Your task to perform on an android device: Open Reddit.com Image 0: 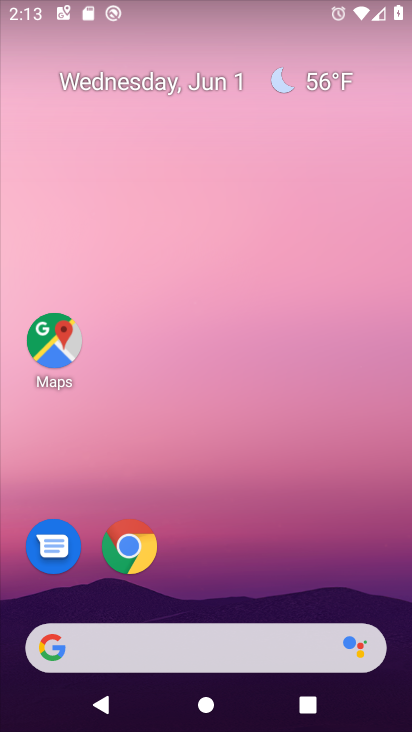
Step 0: click (123, 561)
Your task to perform on an android device: Open Reddit.com Image 1: 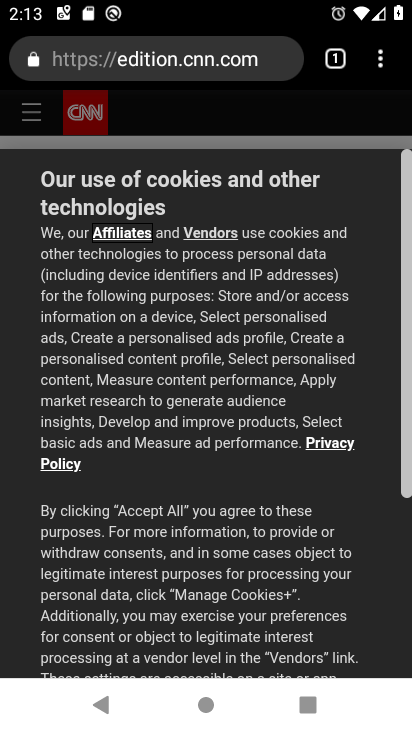
Step 1: click (336, 61)
Your task to perform on an android device: Open Reddit.com Image 2: 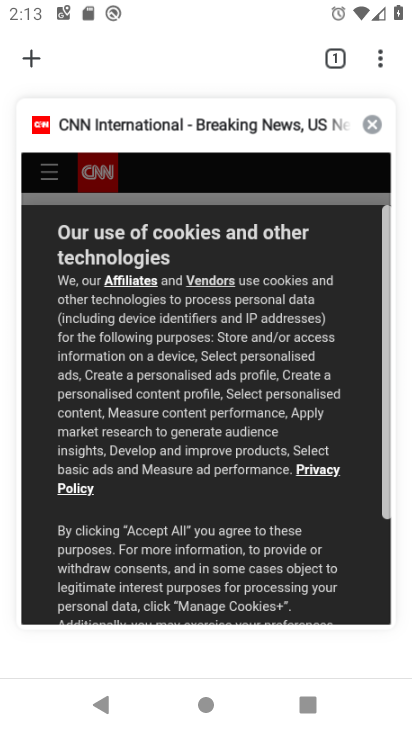
Step 2: click (365, 126)
Your task to perform on an android device: Open Reddit.com Image 3: 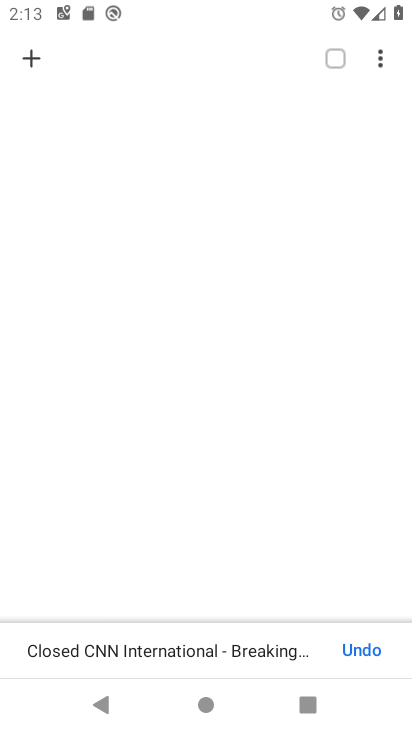
Step 3: click (33, 59)
Your task to perform on an android device: Open Reddit.com Image 4: 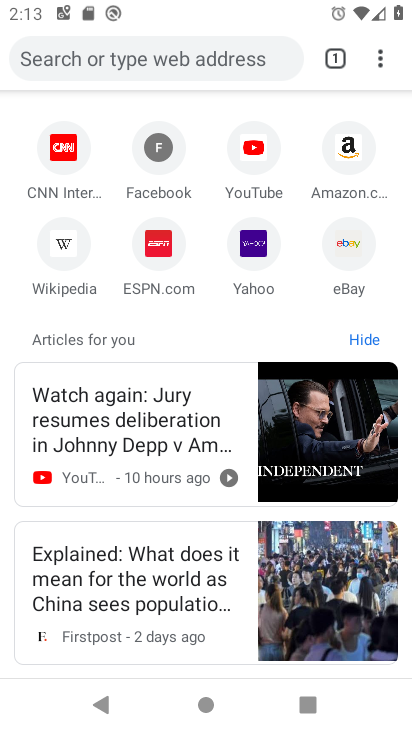
Step 4: click (162, 59)
Your task to perform on an android device: Open Reddit.com Image 5: 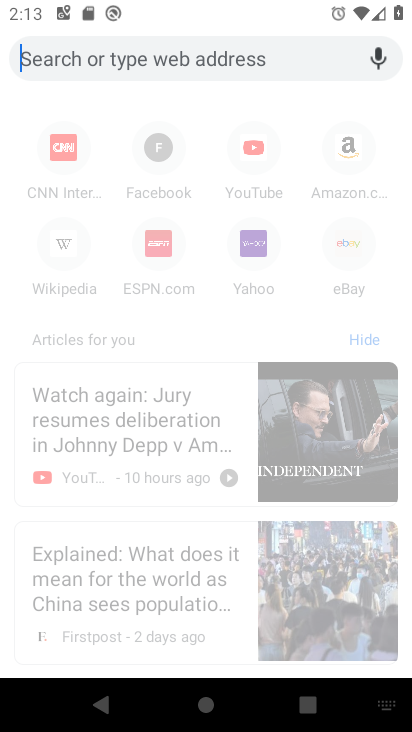
Step 5: type "reddit.com"
Your task to perform on an android device: Open Reddit.com Image 6: 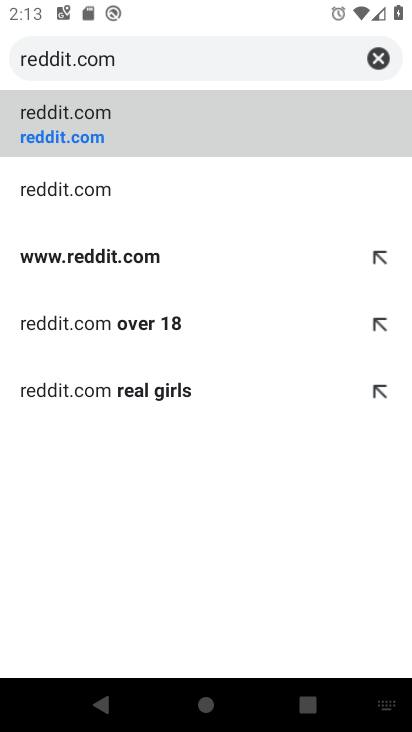
Step 6: click (84, 135)
Your task to perform on an android device: Open Reddit.com Image 7: 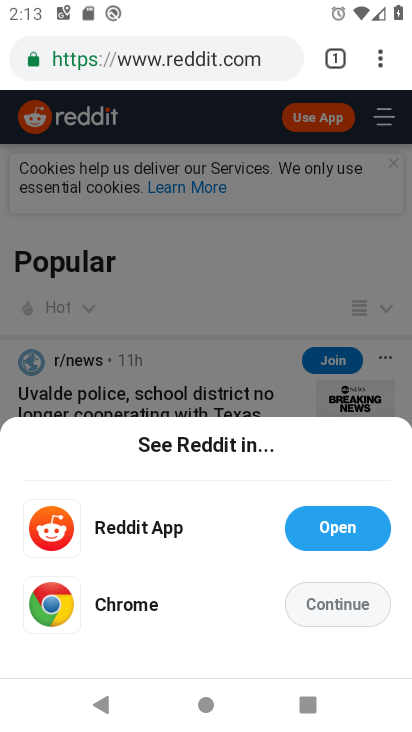
Step 7: click (337, 605)
Your task to perform on an android device: Open Reddit.com Image 8: 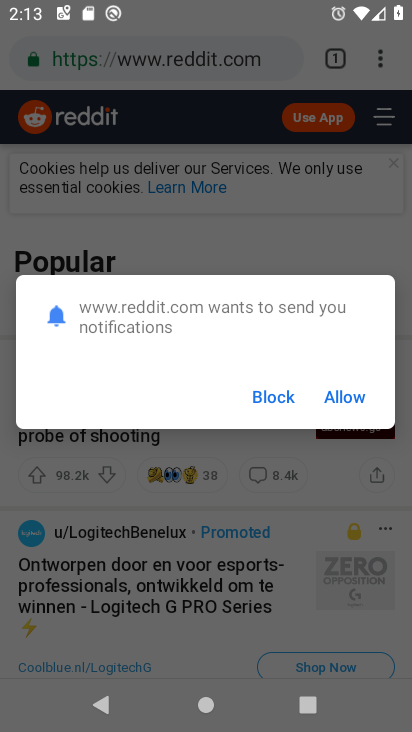
Step 8: click (255, 397)
Your task to perform on an android device: Open Reddit.com Image 9: 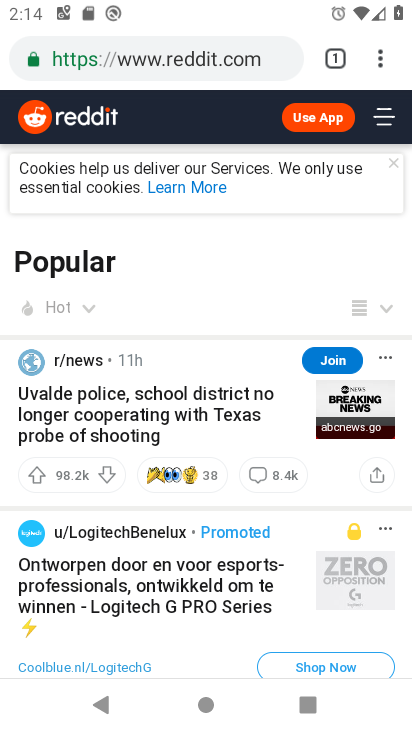
Step 9: task complete